Your task to perform on an android device: change text size in settings app Image 0: 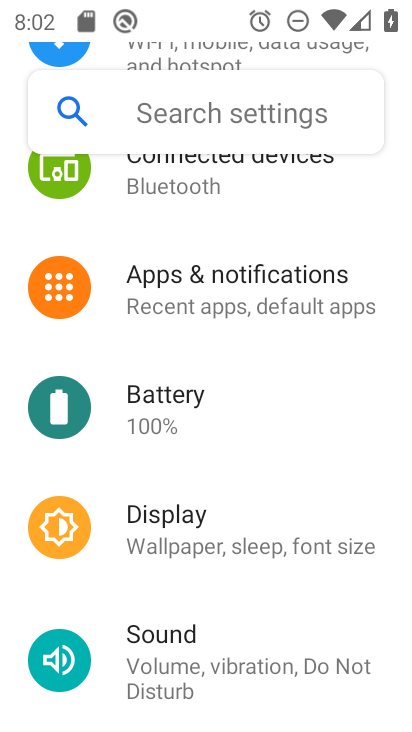
Step 0: press home button
Your task to perform on an android device: change text size in settings app Image 1: 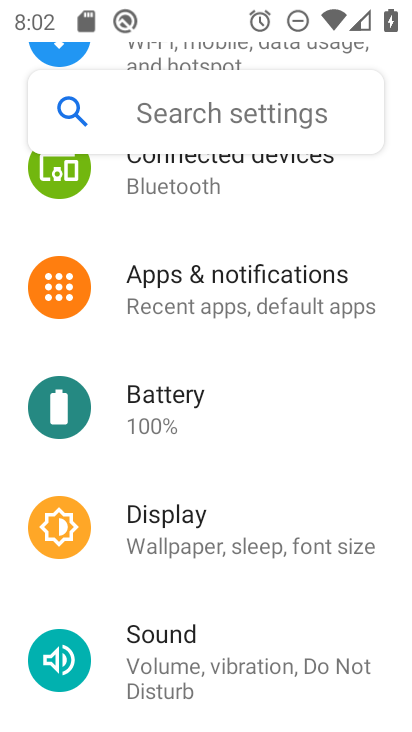
Step 1: press home button
Your task to perform on an android device: change text size in settings app Image 2: 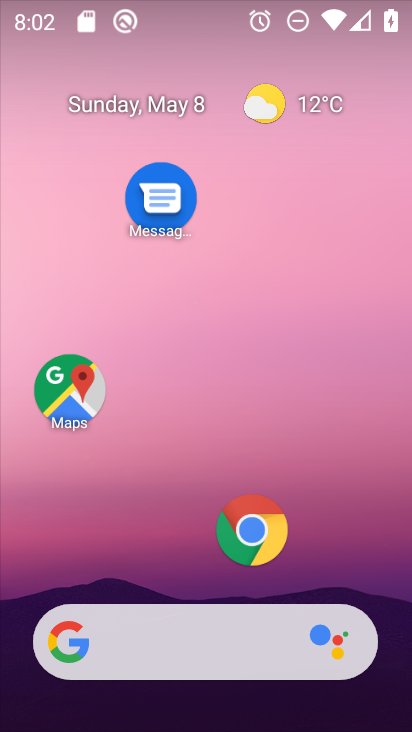
Step 2: drag from (200, 570) to (247, 76)
Your task to perform on an android device: change text size in settings app Image 3: 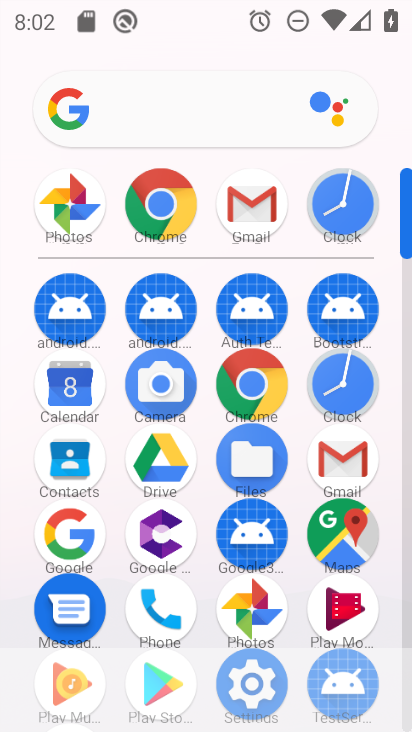
Step 3: drag from (204, 580) to (213, 171)
Your task to perform on an android device: change text size in settings app Image 4: 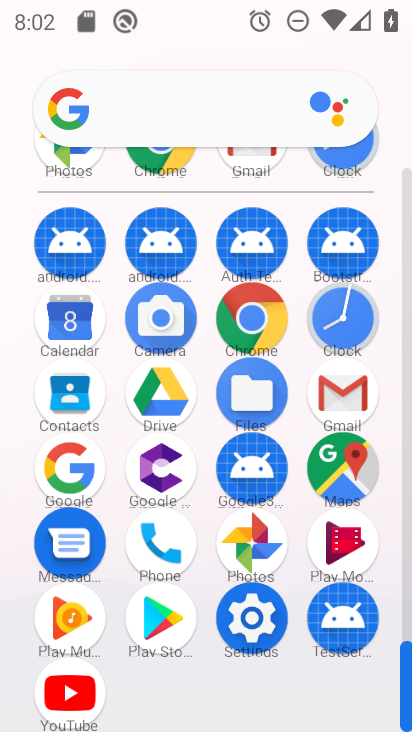
Step 4: click (248, 609)
Your task to perform on an android device: change text size in settings app Image 5: 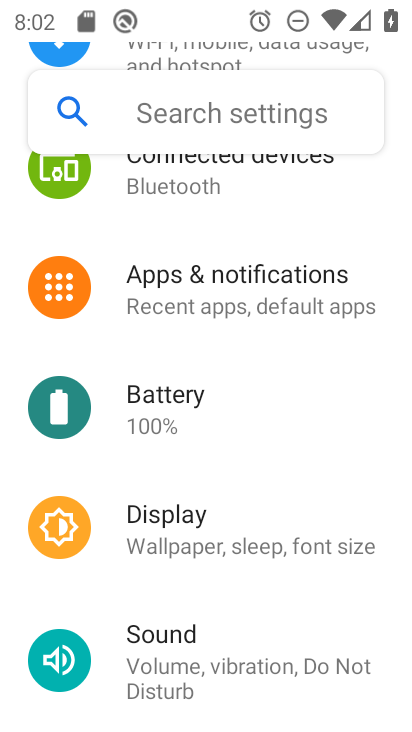
Step 5: click (223, 521)
Your task to perform on an android device: change text size in settings app Image 6: 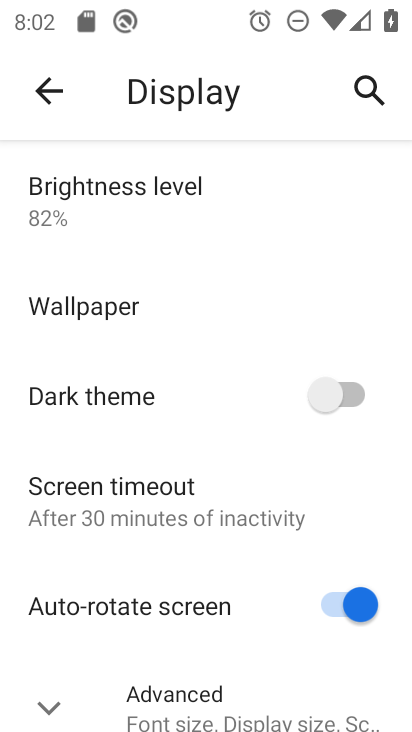
Step 6: click (73, 707)
Your task to perform on an android device: change text size in settings app Image 7: 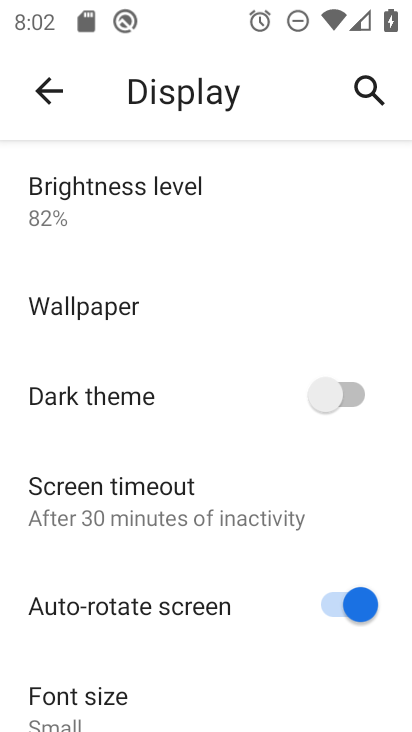
Step 7: click (140, 700)
Your task to perform on an android device: change text size in settings app Image 8: 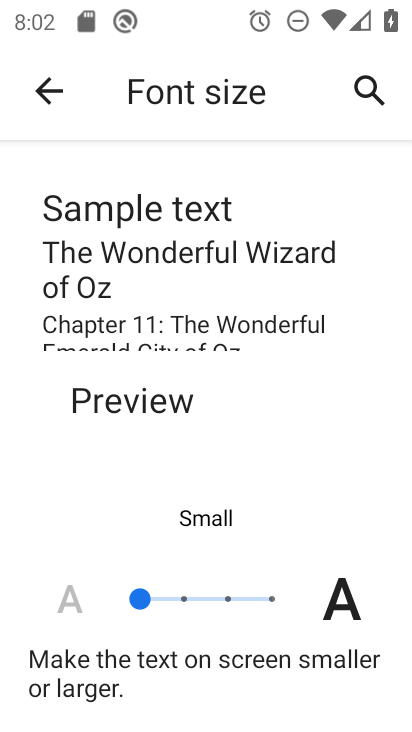
Step 8: click (181, 593)
Your task to perform on an android device: change text size in settings app Image 9: 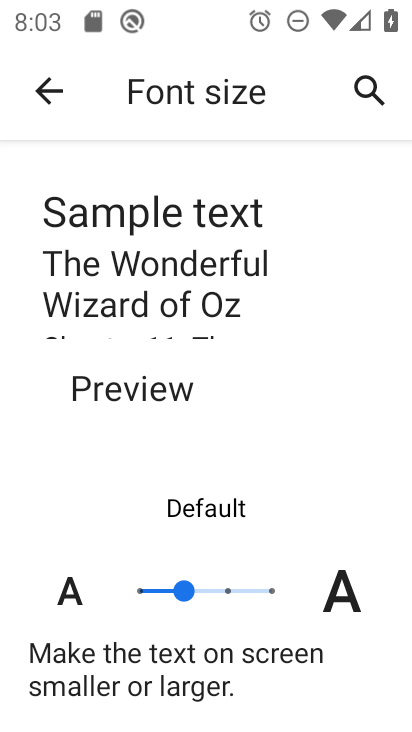
Step 9: task complete